Your task to perform on an android device: clear all cookies in the chrome app Image 0: 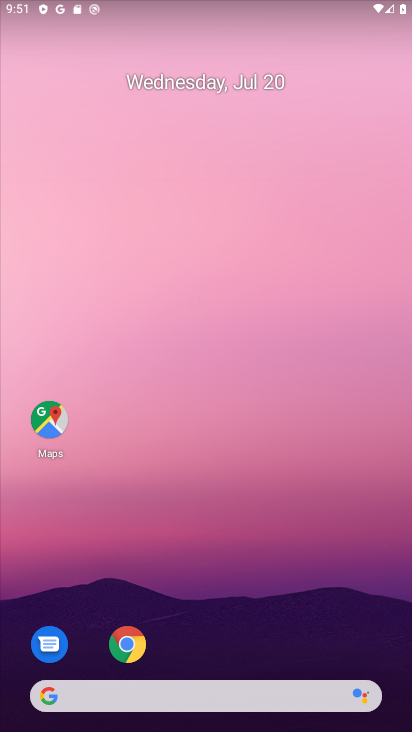
Step 0: click (132, 644)
Your task to perform on an android device: clear all cookies in the chrome app Image 1: 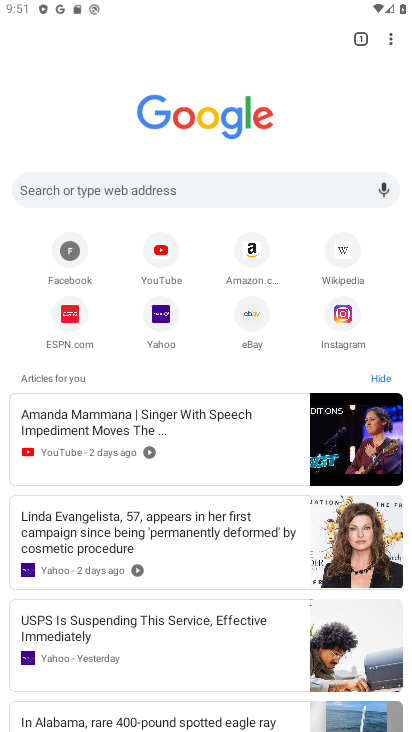
Step 1: click (386, 38)
Your task to perform on an android device: clear all cookies in the chrome app Image 2: 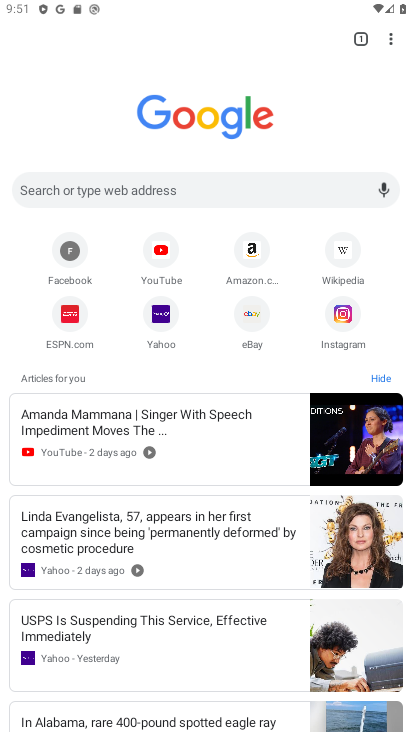
Step 2: click (390, 38)
Your task to perform on an android device: clear all cookies in the chrome app Image 3: 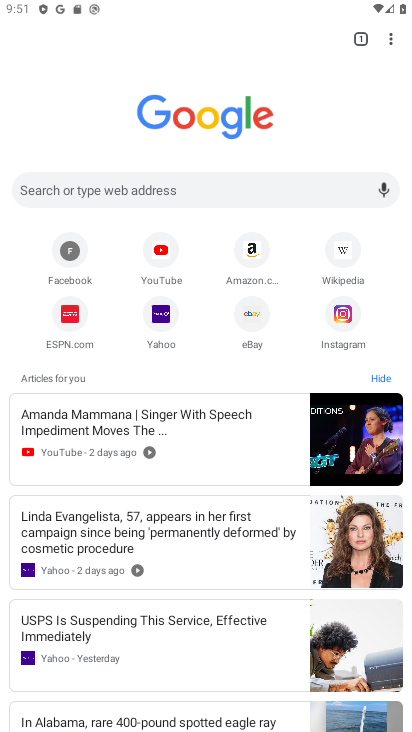
Step 3: click (391, 38)
Your task to perform on an android device: clear all cookies in the chrome app Image 4: 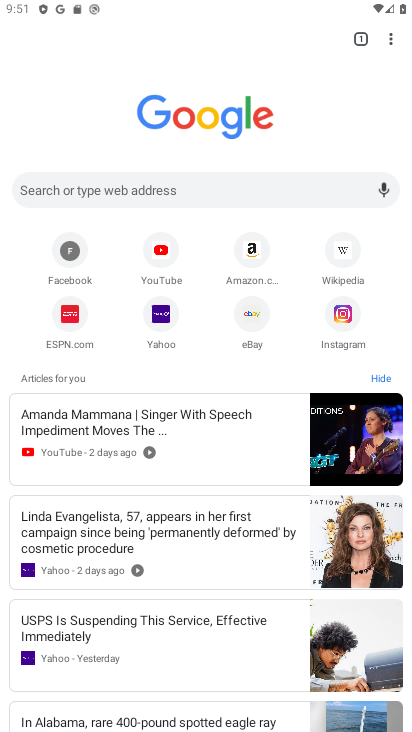
Step 4: click (391, 38)
Your task to perform on an android device: clear all cookies in the chrome app Image 5: 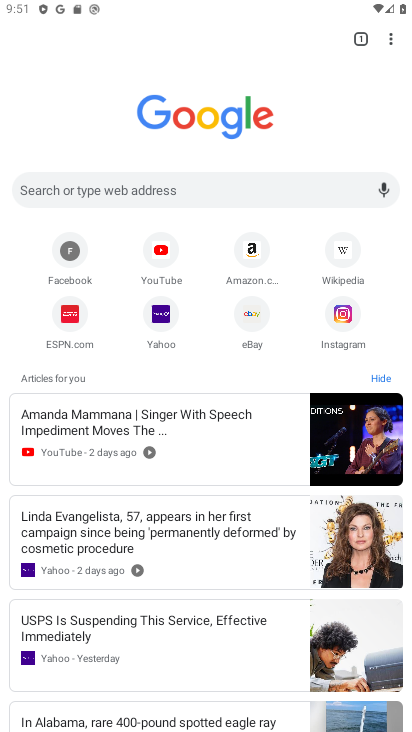
Step 5: click (388, 41)
Your task to perform on an android device: clear all cookies in the chrome app Image 6: 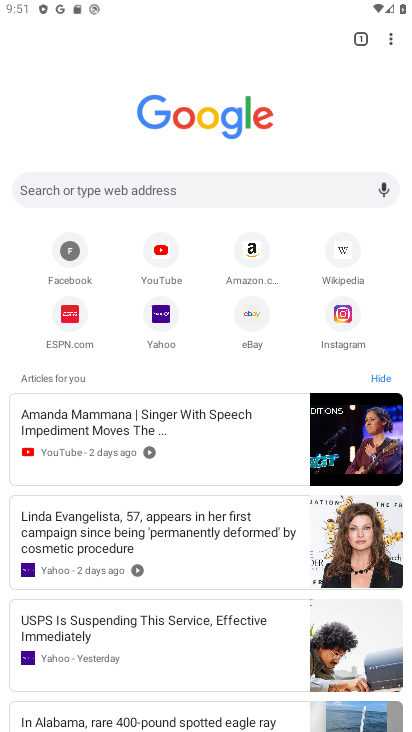
Step 6: click (392, 34)
Your task to perform on an android device: clear all cookies in the chrome app Image 7: 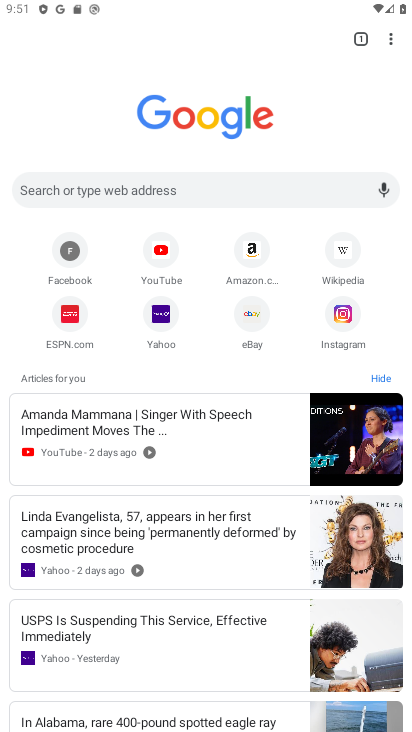
Step 7: click (395, 48)
Your task to perform on an android device: clear all cookies in the chrome app Image 8: 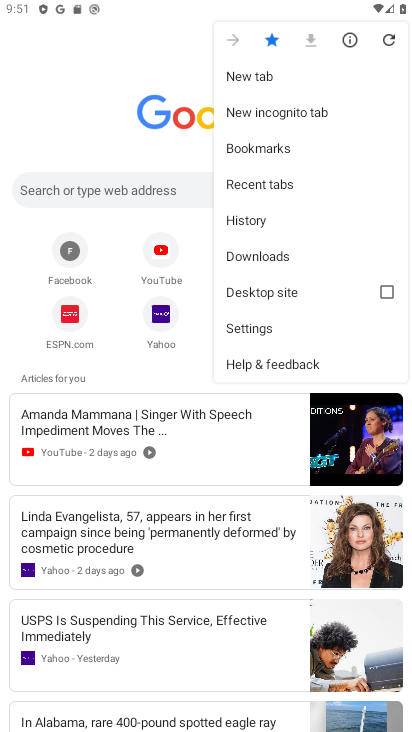
Step 8: click (272, 330)
Your task to perform on an android device: clear all cookies in the chrome app Image 9: 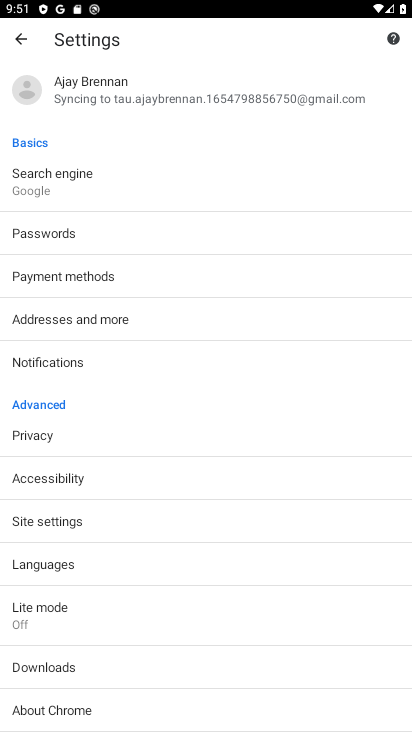
Step 9: click (37, 521)
Your task to perform on an android device: clear all cookies in the chrome app Image 10: 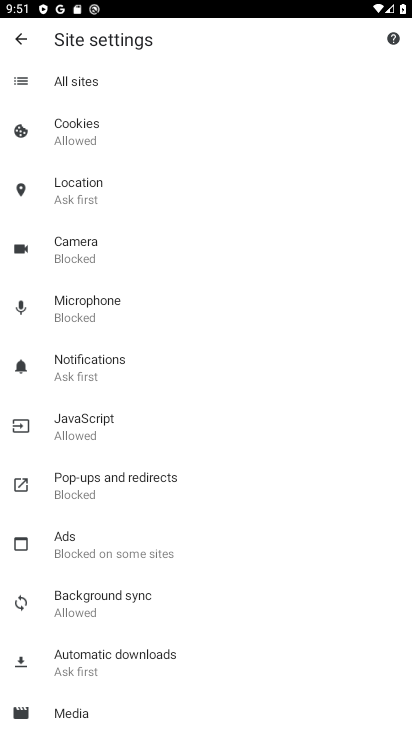
Step 10: click (87, 127)
Your task to perform on an android device: clear all cookies in the chrome app Image 11: 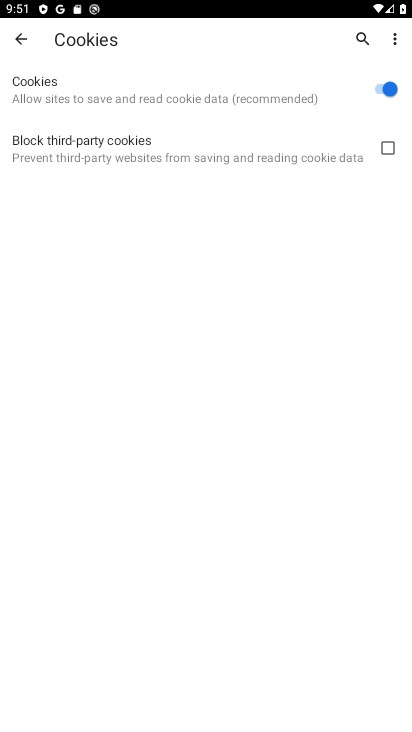
Step 11: click (18, 43)
Your task to perform on an android device: clear all cookies in the chrome app Image 12: 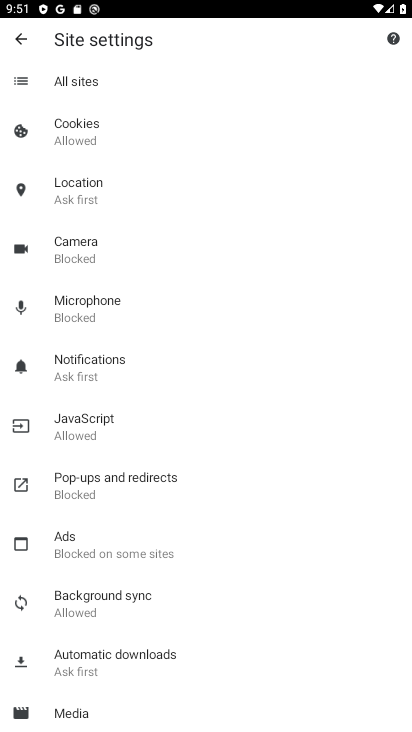
Step 12: click (18, 43)
Your task to perform on an android device: clear all cookies in the chrome app Image 13: 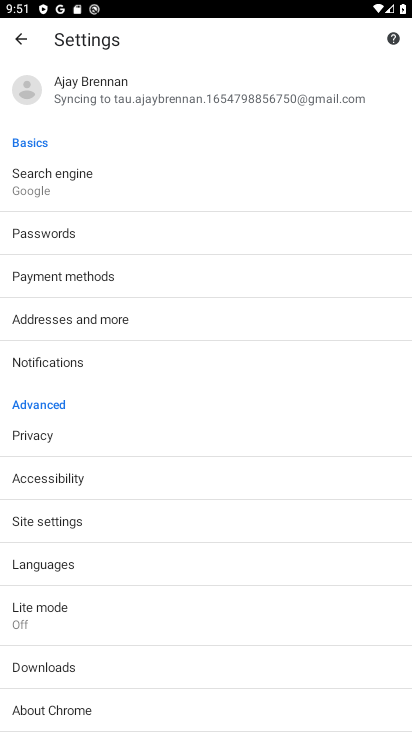
Step 13: click (18, 43)
Your task to perform on an android device: clear all cookies in the chrome app Image 14: 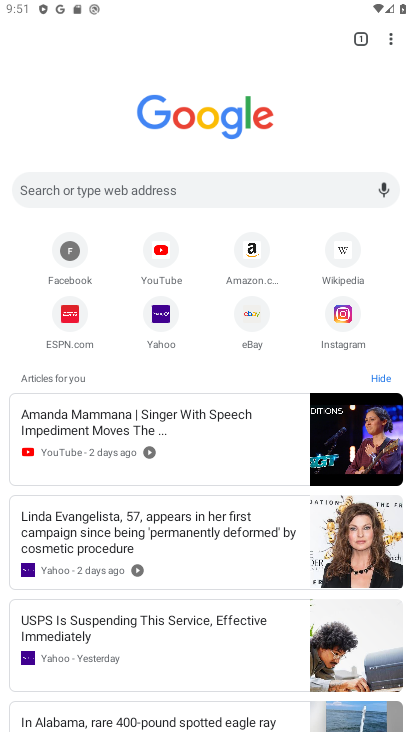
Step 14: click (401, 33)
Your task to perform on an android device: clear all cookies in the chrome app Image 15: 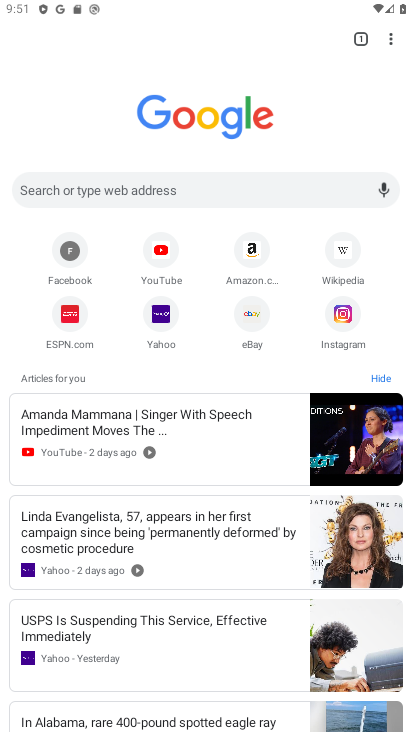
Step 15: click (398, 40)
Your task to perform on an android device: clear all cookies in the chrome app Image 16: 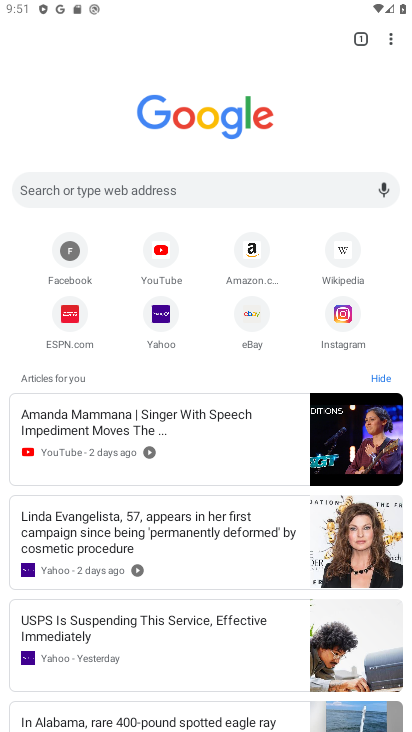
Step 16: click (395, 50)
Your task to perform on an android device: clear all cookies in the chrome app Image 17: 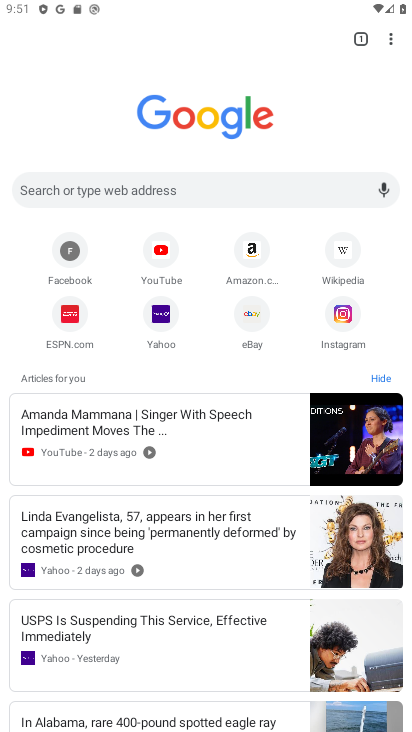
Step 17: click (402, 42)
Your task to perform on an android device: clear all cookies in the chrome app Image 18: 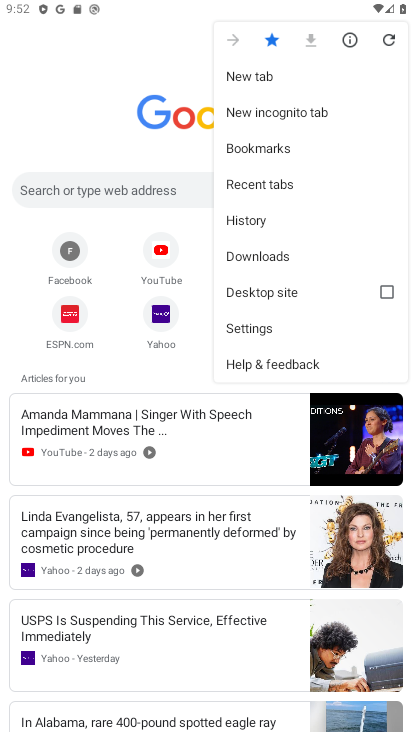
Step 18: click (257, 218)
Your task to perform on an android device: clear all cookies in the chrome app Image 19: 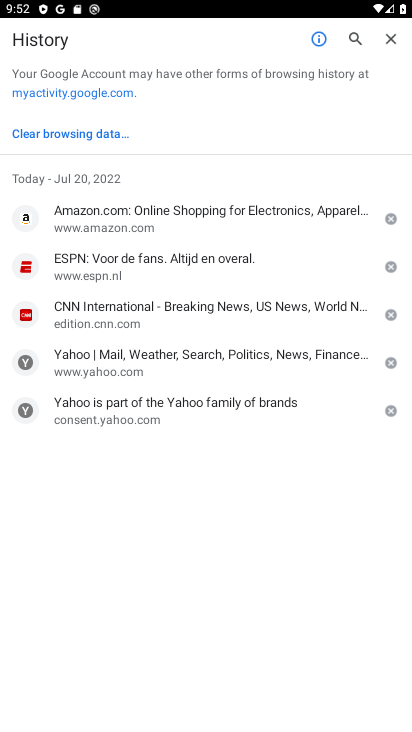
Step 19: click (79, 132)
Your task to perform on an android device: clear all cookies in the chrome app Image 20: 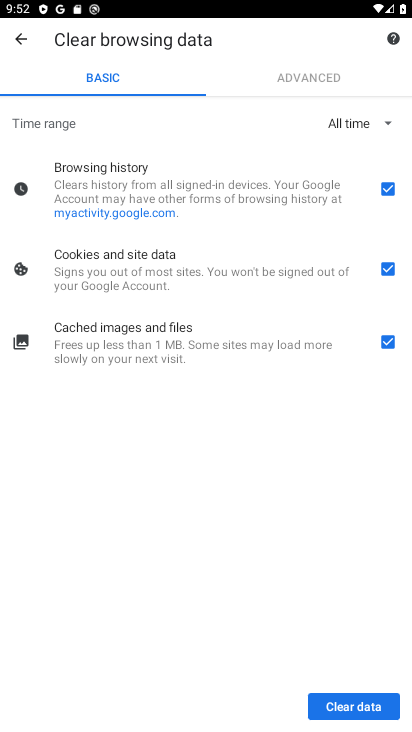
Step 20: click (390, 188)
Your task to perform on an android device: clear all cookies in the chrome app Image 21: 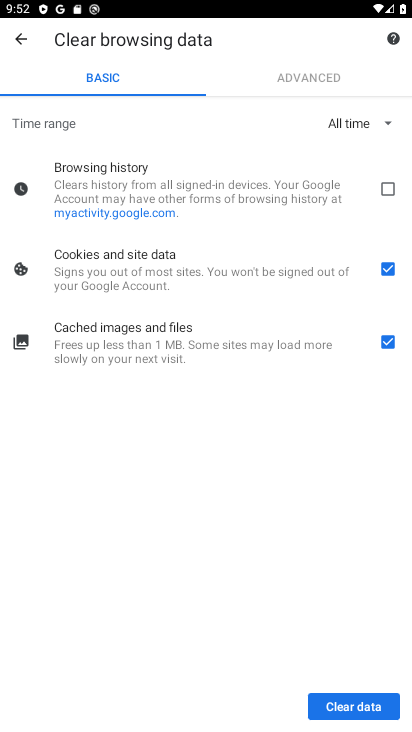
Step 21: click (393, 339)
Your task to perform on an android device: clear all cookies in the chrome app Image 22: 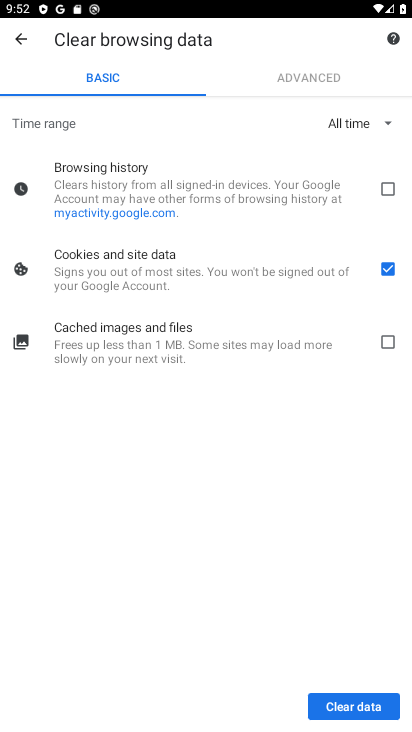
Step 22: click (338, 716)
Your task to perform on an android device: clear all cookies in the chrome app Image 23: 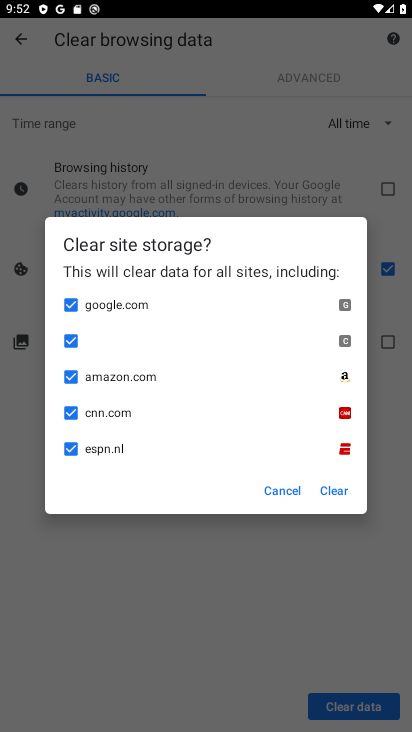
Step 23: click (334, 489)
Your task to perform on an android device: clear all cookies in the chrome app Image 24: 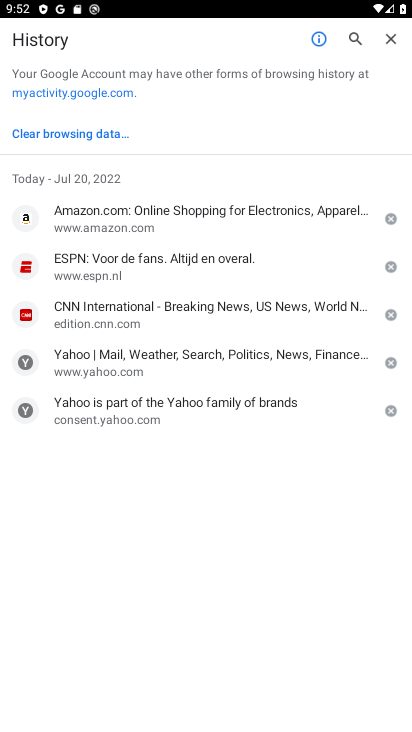
Step 24: task complete